Your task to perform on an android device: toggle airplane mode Image 0: 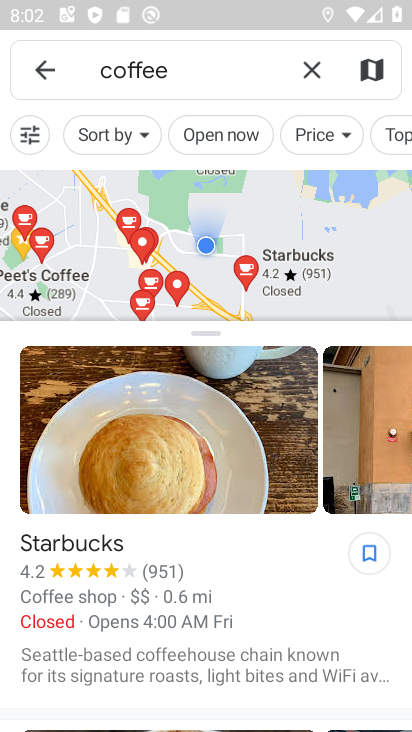
Step 0: press home button
Your task to perform on an android device: toggle airplane mode Image 1: 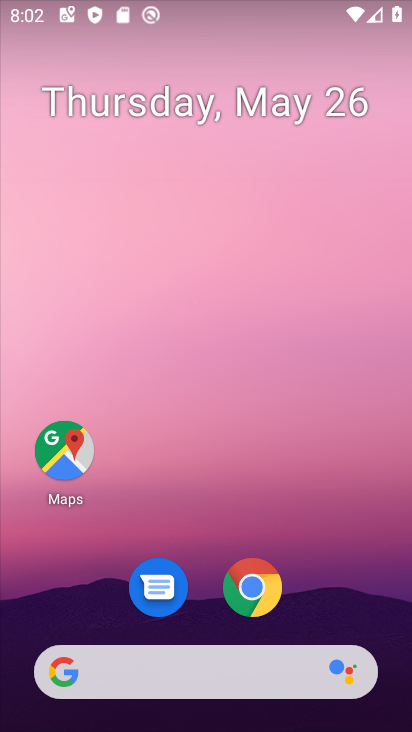
Step 1: drag from (202, 609) to (218, 218)
Your task to perform on an android device: toggle airplane mode Image 2: 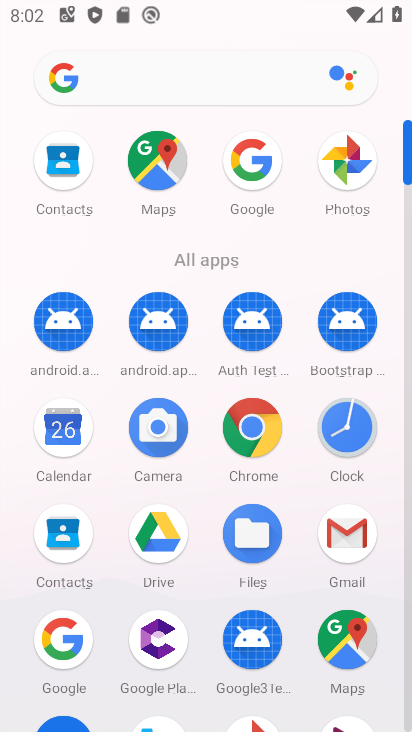
Step 2: drag from (214, 590) to (210, 296)
Your task to perform on an android device: toggle airplane mode Image 3: 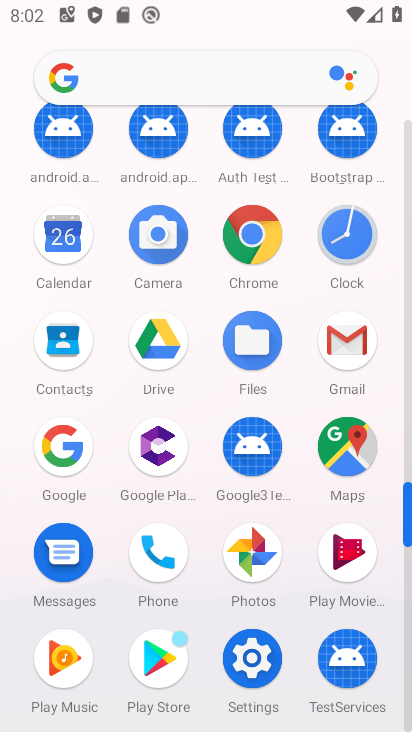
Step 3: click (244, 640)
Your task to perform on an android device: toggle airplane mode Image 4: 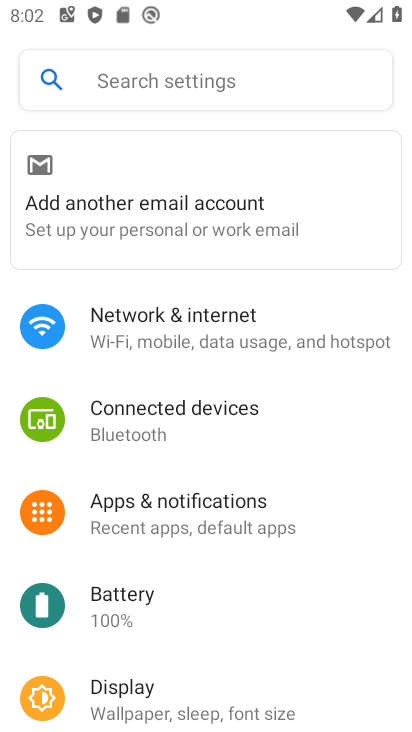
Step 4: click (203, 332)
Your task to perform on an android device: toggle airplane mode Image 5: 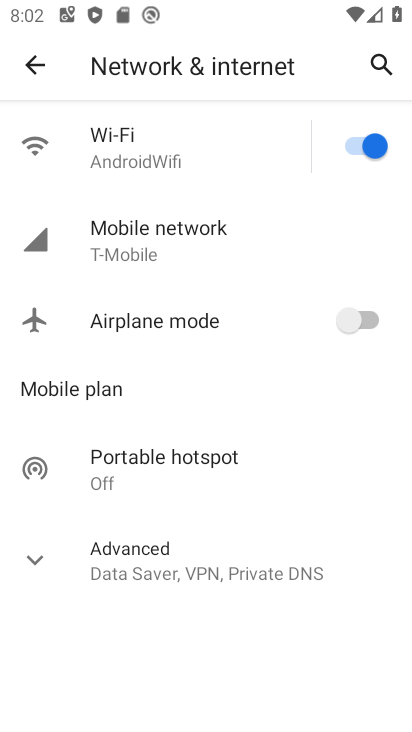
Step 5: click (374, 312)
Your task to perform on an android device: toggle airplane mode Image 6: 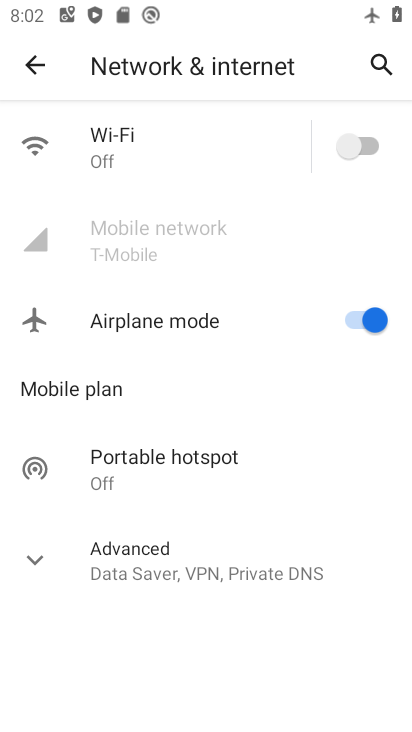
Step 6: task complete